Your task to perform on an android device: turn off translation in the chrome app Image 0: 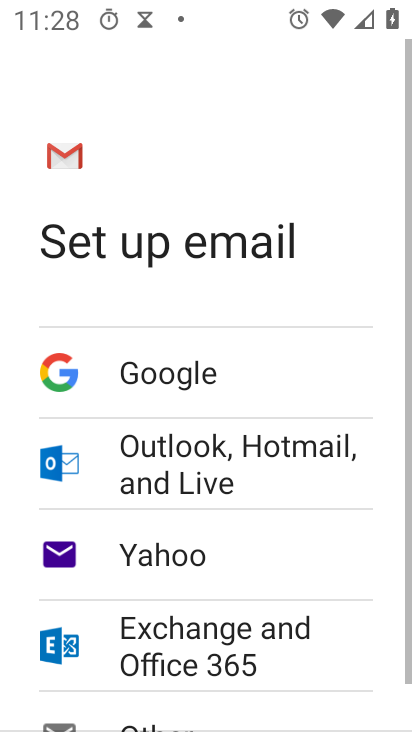
Step 0: press home button
Your task to perform on an android device: turn off translation in the chrome app Image 1: 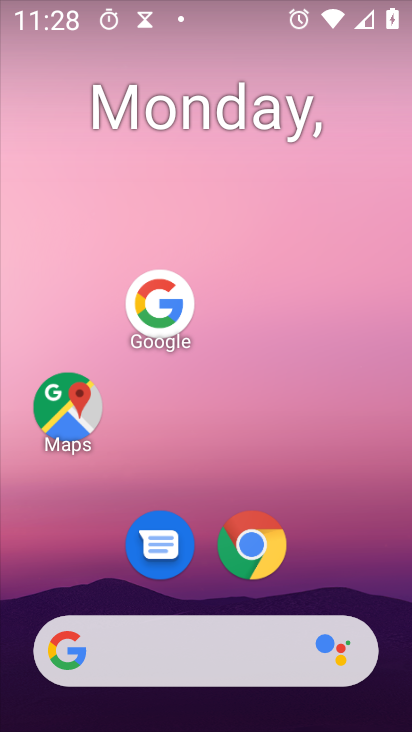
Step 1: click (268, 562)
Your task to perform on an android device: turn off translation in the chrome app Image 2: 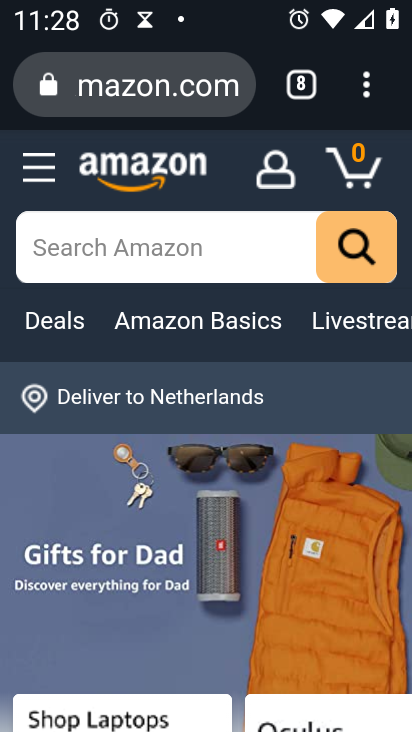
Step 2: drag from (367, 102) to (221, 608)
Your task to perform on an android device: turn off translation in the chrome app Image 3: 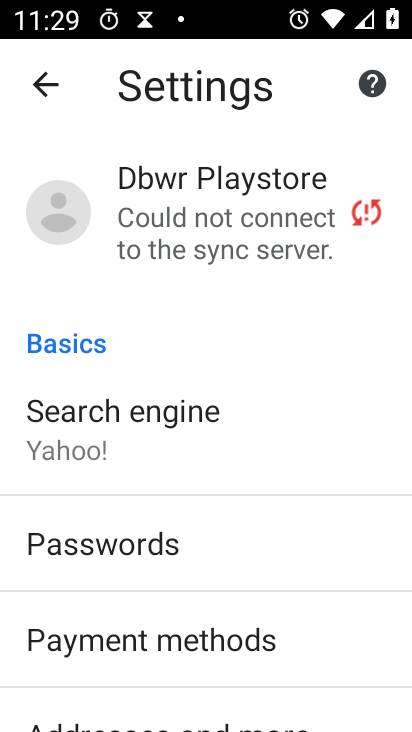
Step 3: drag from (149, 677) to (243, 156)
Your task to perform on an android device: turn off translation in the chrome app Image 4: 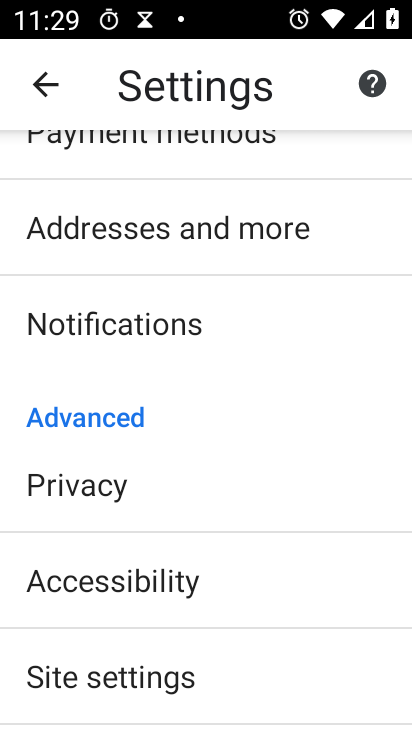
Step 4: drag from (142, 640) to (234, 168)
Your task to perform on an android device: turn off translation in the chrome app Image 5: 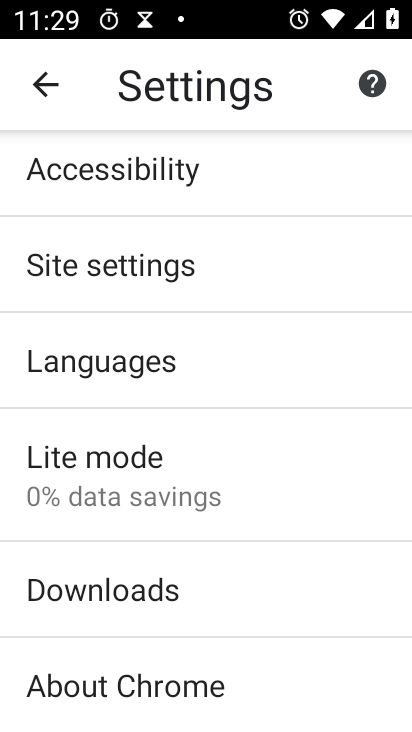
Step 5: click (145, 378)
Your task to perform on an android device: turn off translation in the chrome app Image 6: 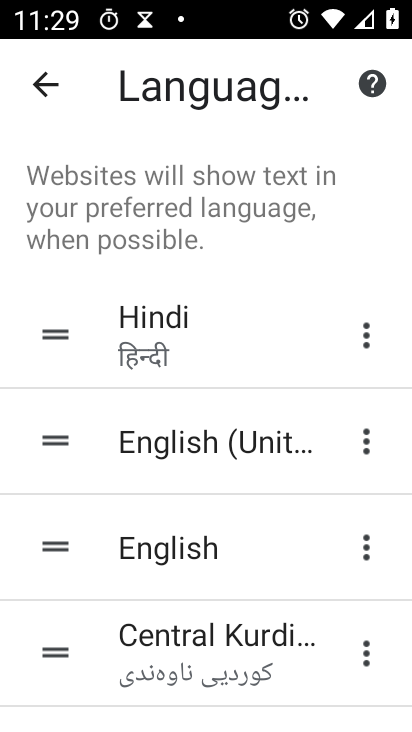
Step 6: task complete